Your task to perform on an android device: turn off notifications settings in the gmail app Image 0: 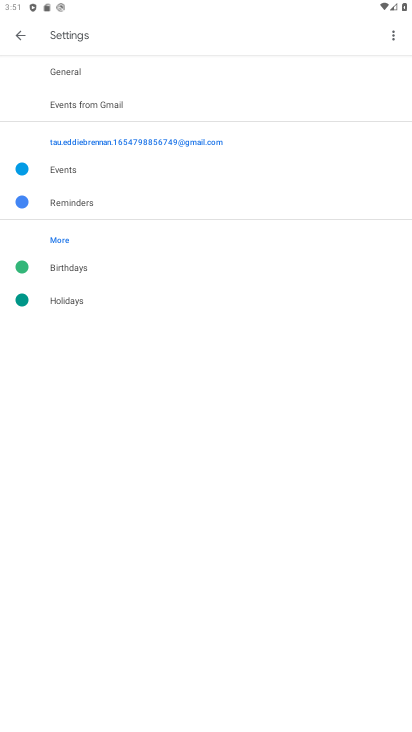
Step 0: press home button
Your task to perform on an android device: turn off notifications settings in the gmail app Image 1: 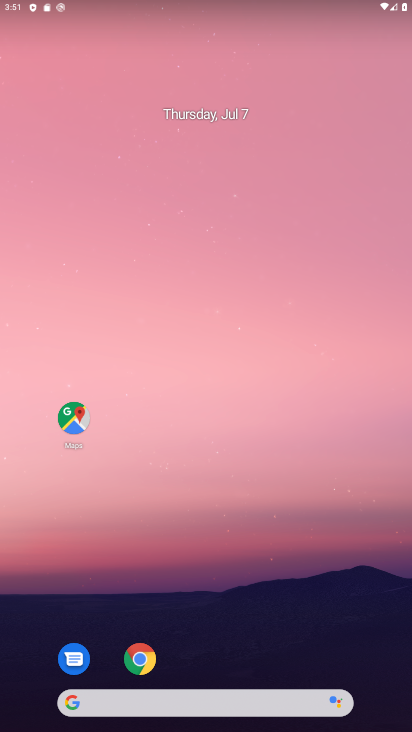
Step 1: drag from (206, 629) to (217, 38)
Your task to perform on an android device: turn off notifications settings in the gmail app Image 2: 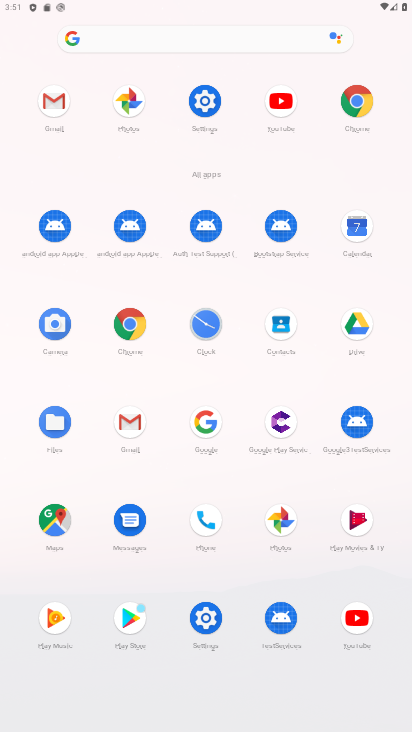
Step 2: click (137, 431)
Your task to perform on an android device: turn off notifications settings in the gmail app Image 3: 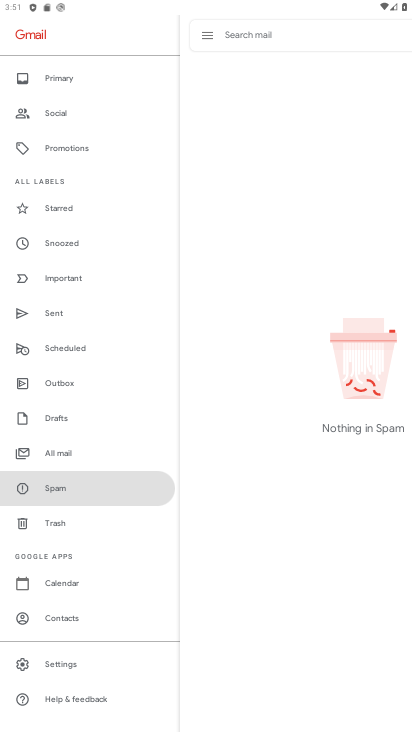
Step 3: click (71, 664)
Your task to perform on an android device: turn off notifications settings in the gmail app Image 4: 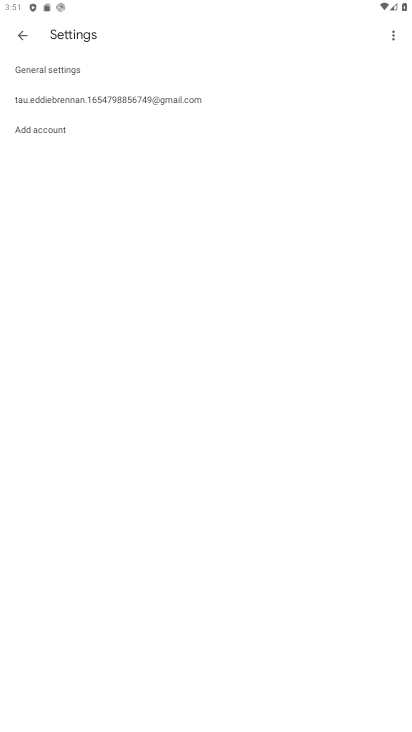
Step 4: click (67, 69)
Your task to perform on an android device: turn off notifications settings in the gmail app Image 5: 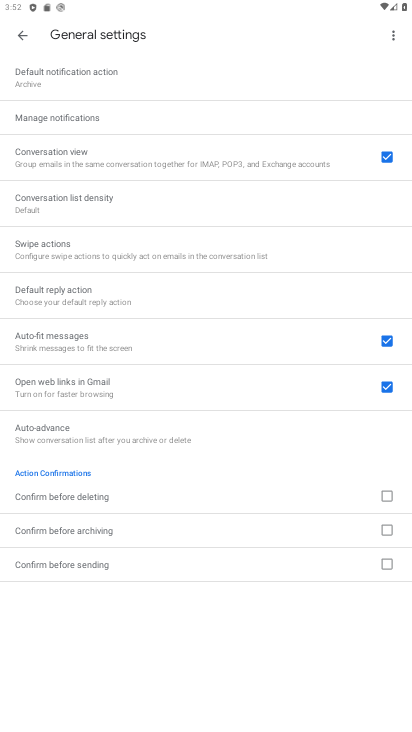
Step 5: click (82, 124)
Your task to perform on an android device: turn off notifications settings in the gmail app Image 6: 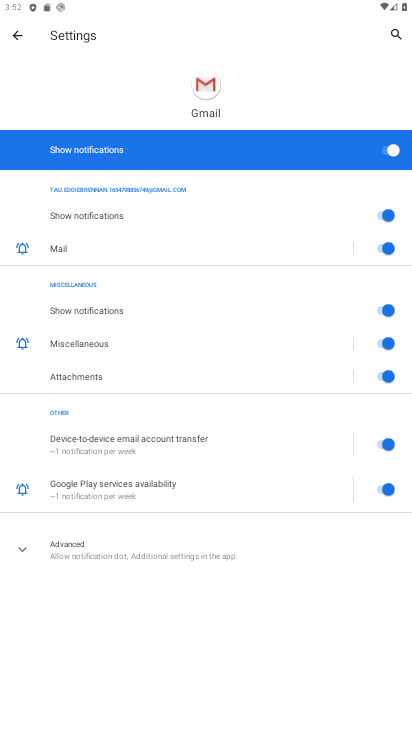
Step 6: click (376, 144)
Your task to perform on an android device: turn off notifications settings in the gmail app Image 7: 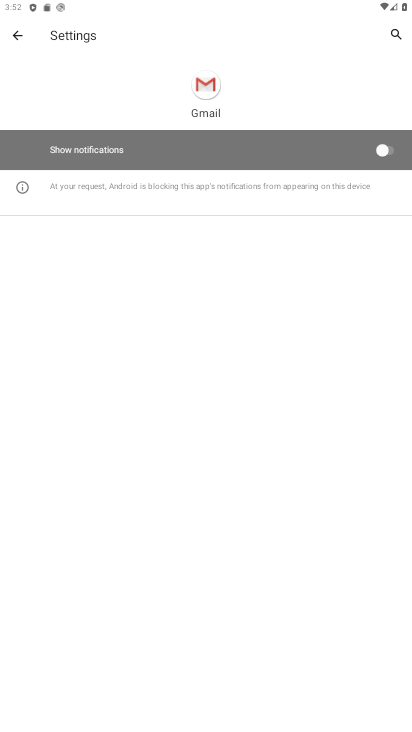
Step 7: task complete